Your task to perform on an android device: Go to ESPN.com Image 0: 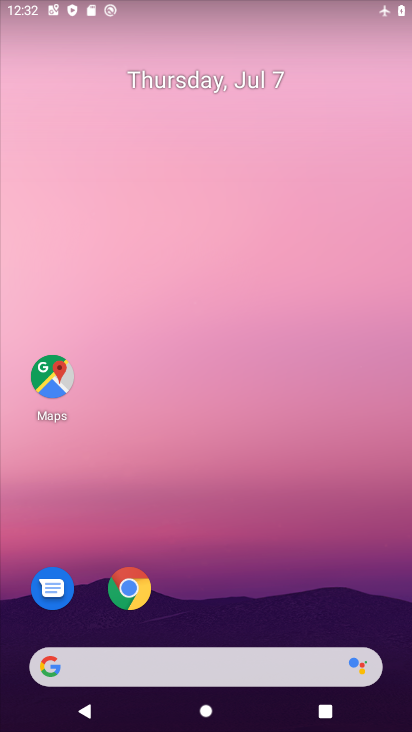
Step 0: drag from (173, 616) to (218, 64)
Your task to perform on an android device: Go to ESPN.com Image 1: 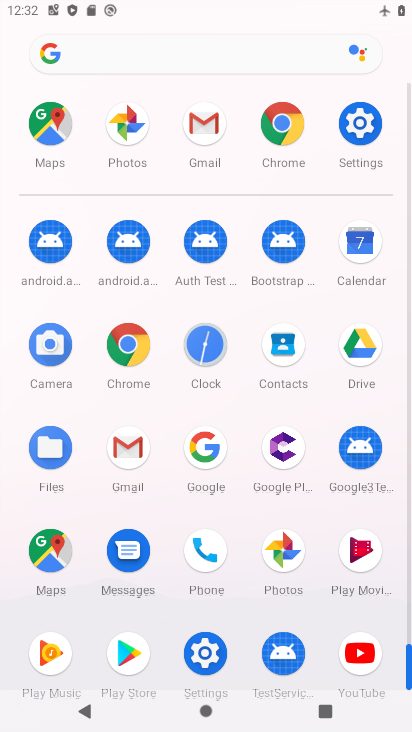
Step 1: click (213, 114)
Your task to perform on an android device: Go to ESPN.com Image 2: 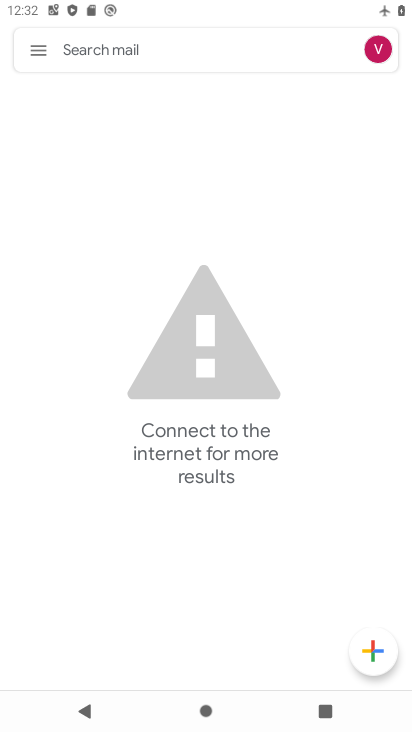
Step 2: drag from (332, 485) to (392, 272)
Your task to perform on an android device: Go to ESPN.com Image 3: 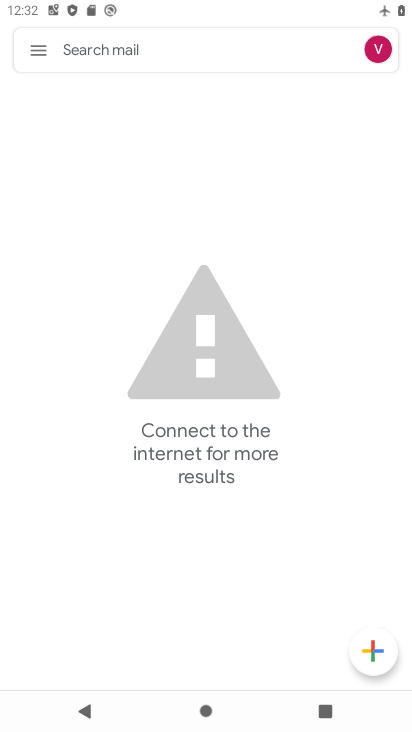
Step 3: press home button
Your task to perform on an android device: Go to ESPN.com Image 4: 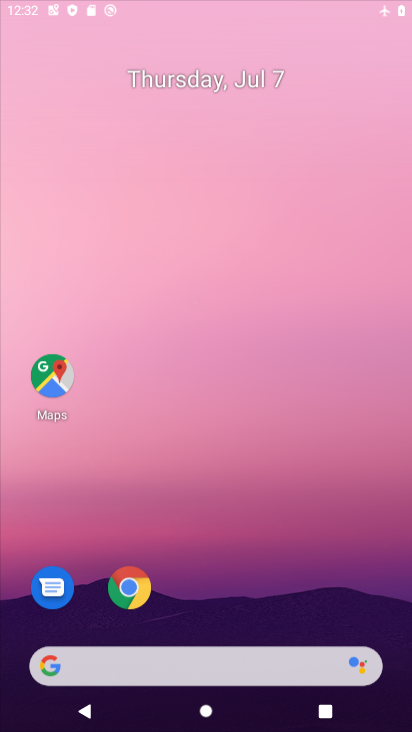
Step 4: drag from (271, 550) to (298, 13)
Your task to perform on an android device: Go to ESPN.com Image 5: 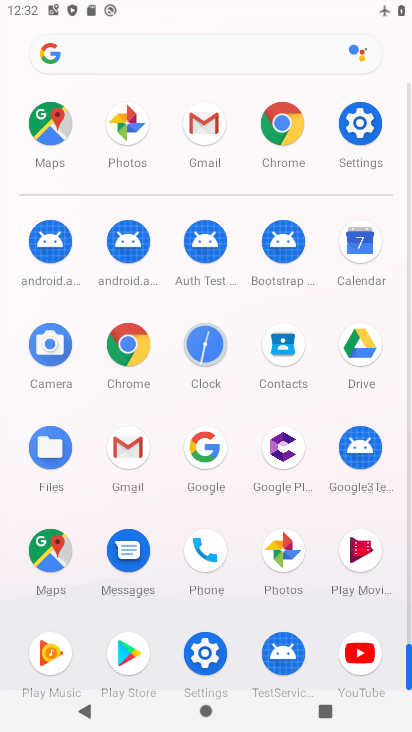
Step 5: click (273, 114)
Your task to perform on an android device: Go to ESPN.com Image 6: 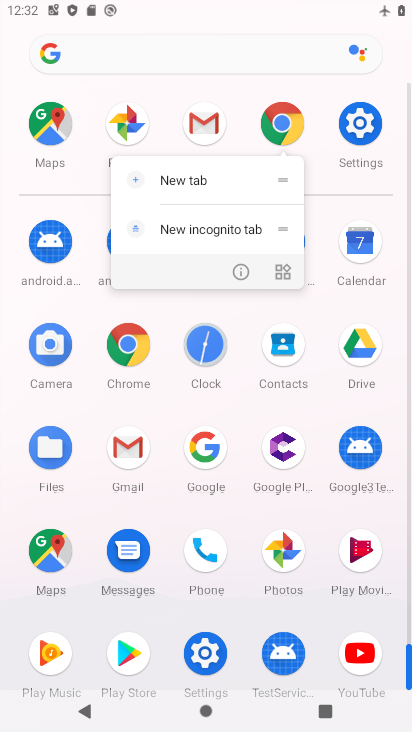
Step 6: click (236, 265)
Your task to perform on an android device: Go to ESPN.com Image 7: 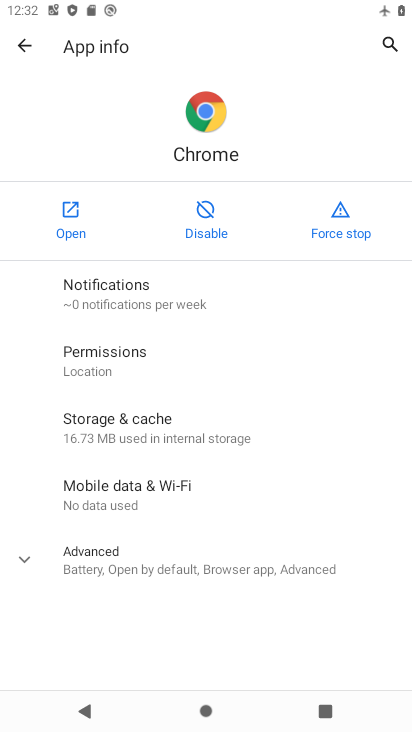
Step 7: click (81, 217)
Your task to perform on an android device: Go to ESPN.com Image 8: 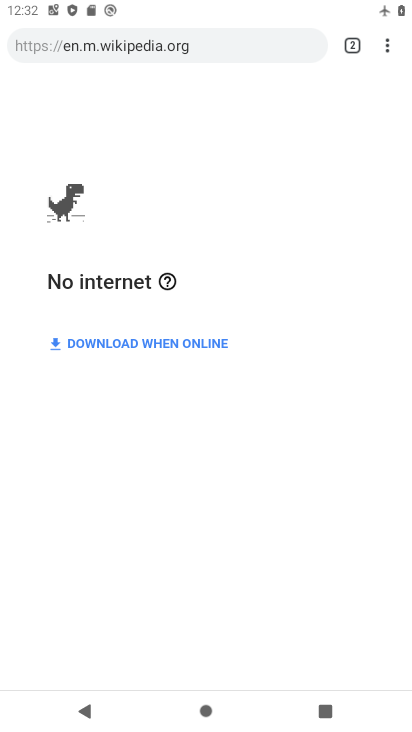
Step 8: click (277, 315)
Your task to perform on an android device: Go to ESPN.com Image 9: 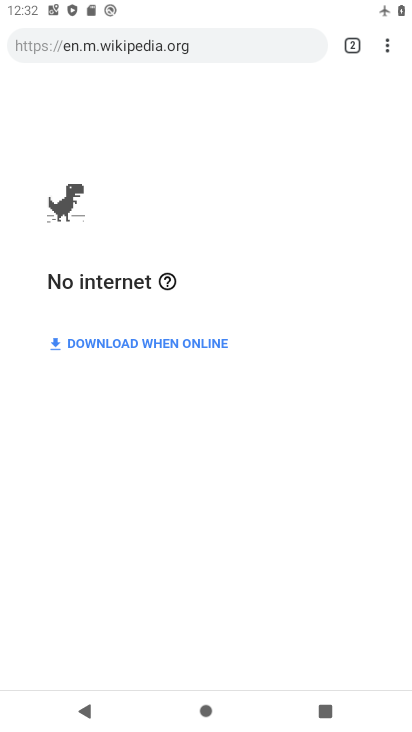
Step 9: task complete